Your task to perform on an android device: check google app version Image 0: 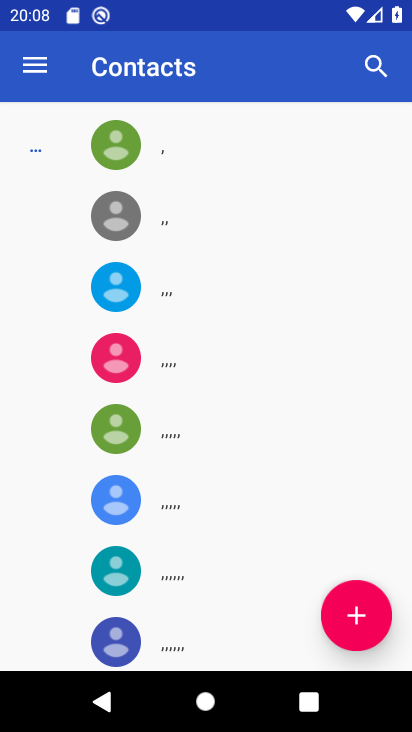
Step 0: press home button
Your task to perform on an android device: check google app version Image 1: 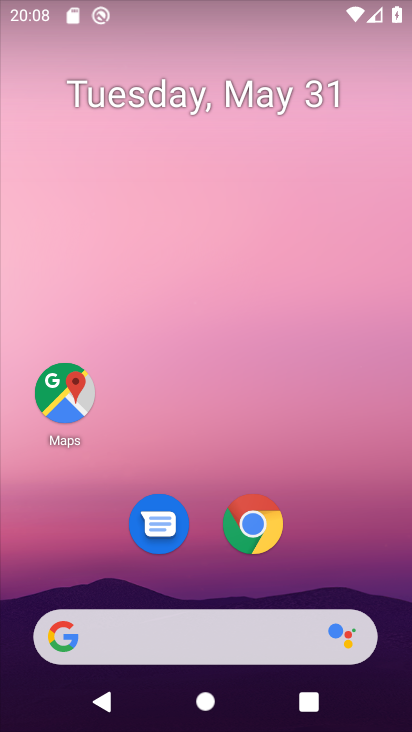
Step 1: click (184, 634)
Your task to perform on an android device: check google app version Image 2: 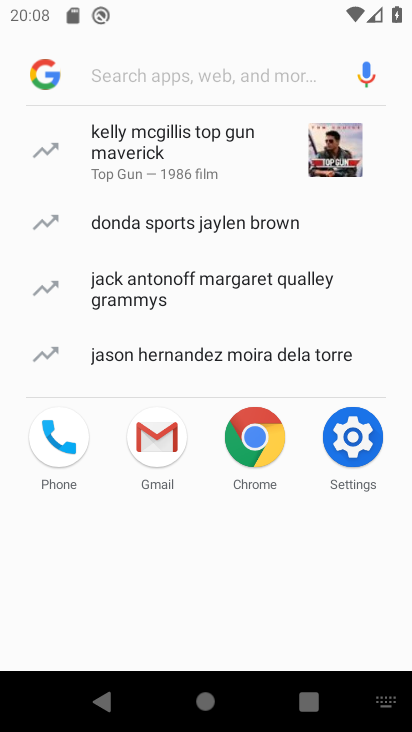
Step 2: click (45, 70)
Your task to perform on an android device: check google app version Image 3: 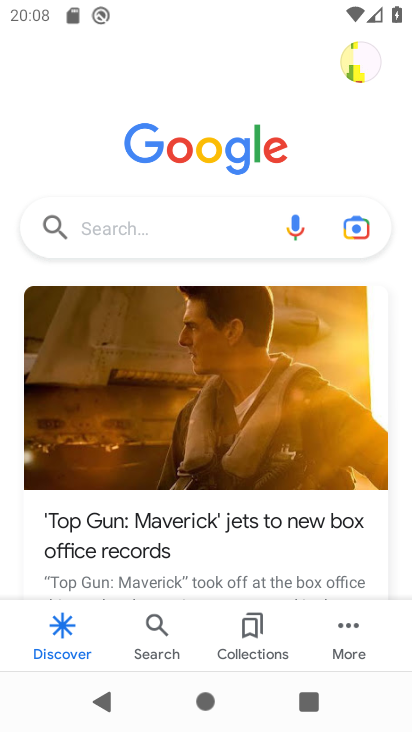
Step 3: click (351, 620)
Your task to perform on an android device: check google app version Image 4: 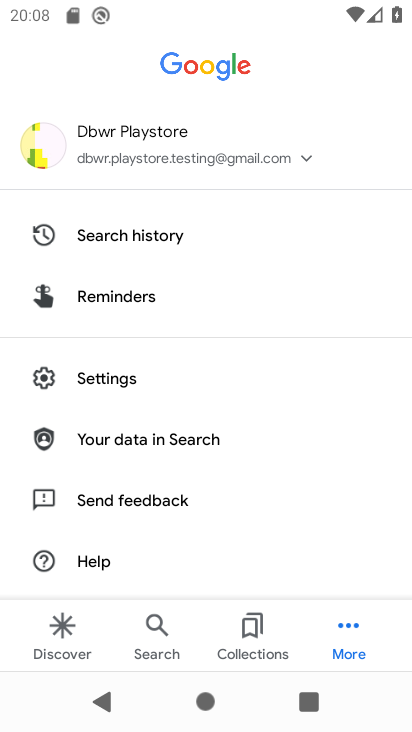
Step 4: click (119, 379)
Your task to perform on an android device: check google app version Image 5: 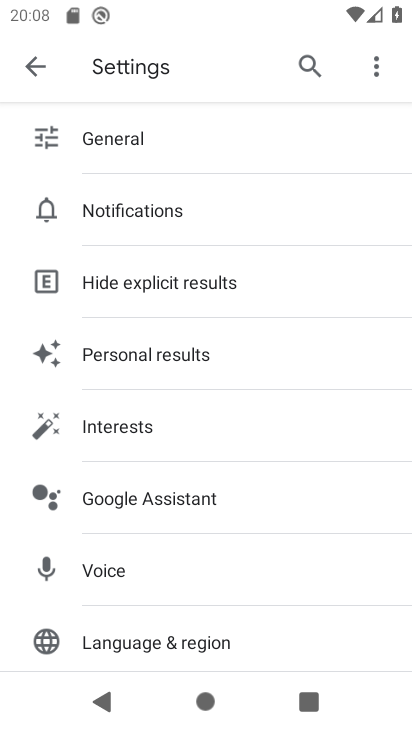
Step 5: drag from (193, 543) to (250, 291)
Your task to perform on an android device: check google app version Image 6: 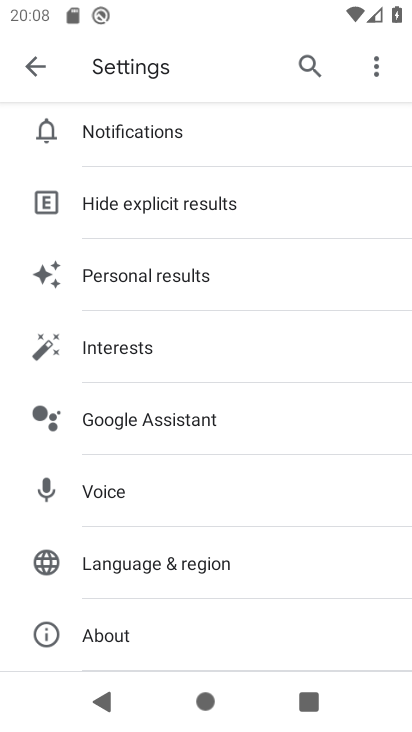
Step 6: click (131, 630)
Your task to perform on an android device: check google app version Image 7: 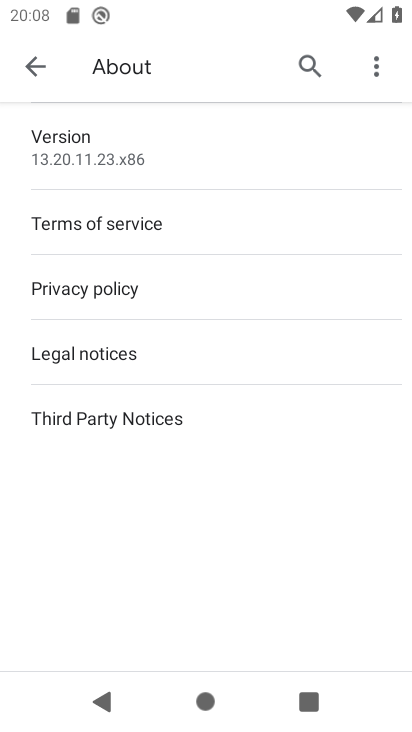
Step 7: task complete